Your task to perform on an android device: Go to battery settings Image 0: 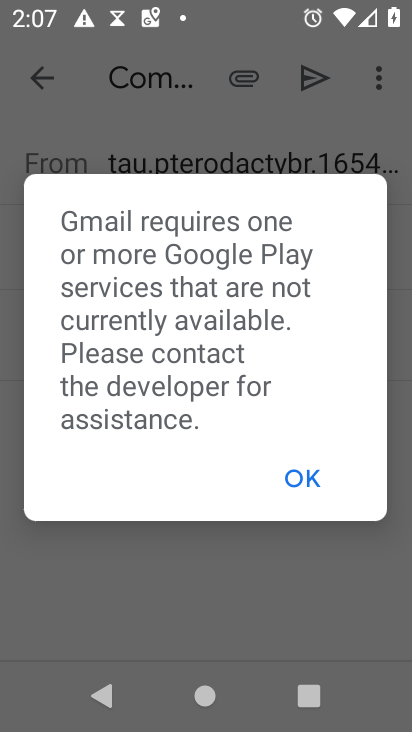
Step 0: click (313, 479)
Your task to perform on an android device: Go to battery settings Image 1: 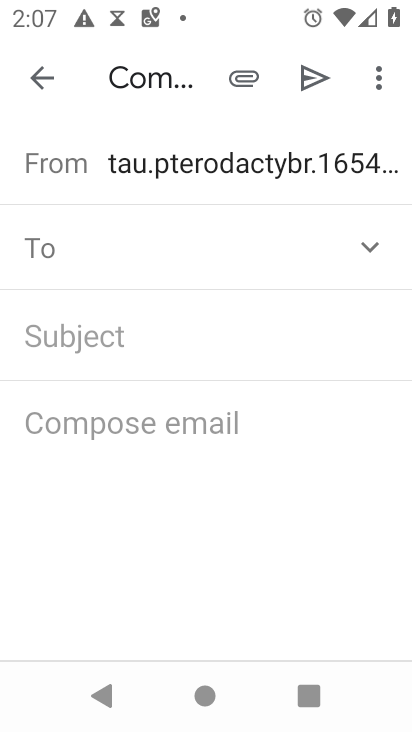
Step 1: press back button
Your task to perform on an android device: Go to battery settings Image 2: 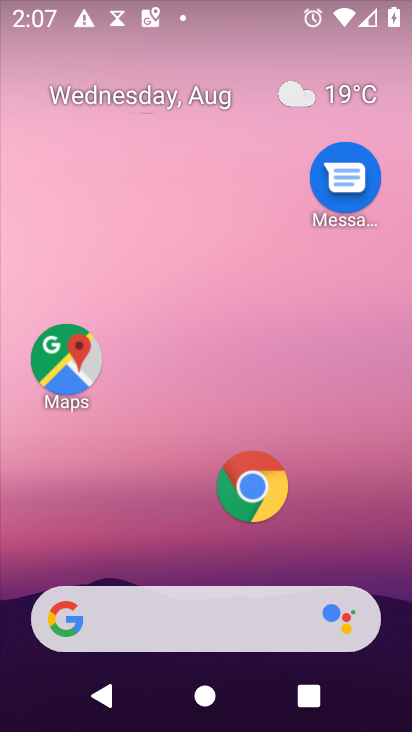
Step 2: drag from (133, 524) to (211, 22)
Your task to perform on an android device: Go to battery settings Image 3: 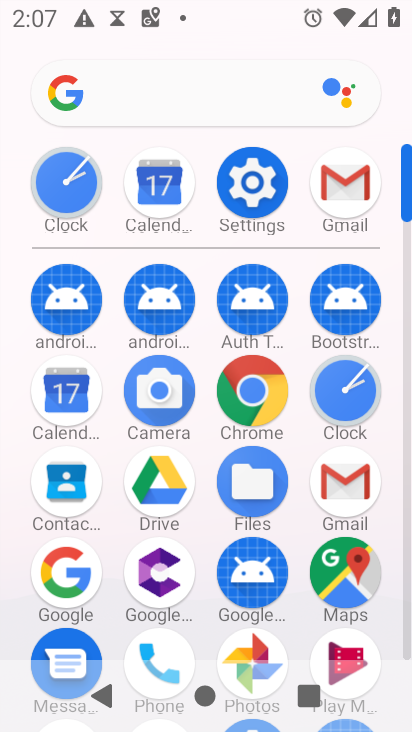
Step 3: click (252, 179)
Your task to perform on an android device: Go to battery settings Image 4: 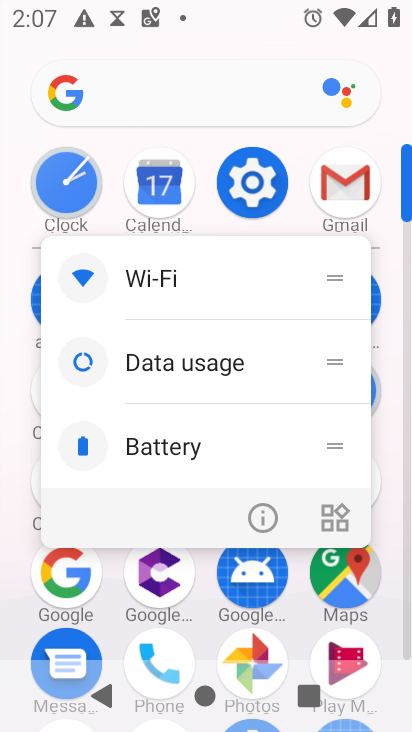
Step 4: click (260, 186)
Your task to perform on an android device: Go to battery settings Image 5: 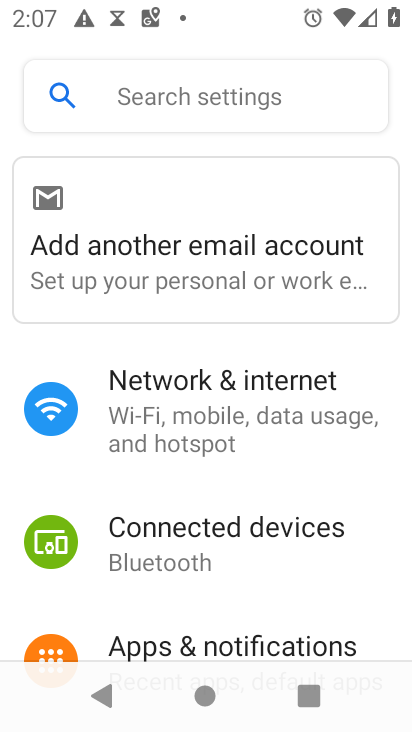
Step 5: drag from (171, 646) to (258, 95)
Your task to perform on an android device: Go to battery settings Image 6: 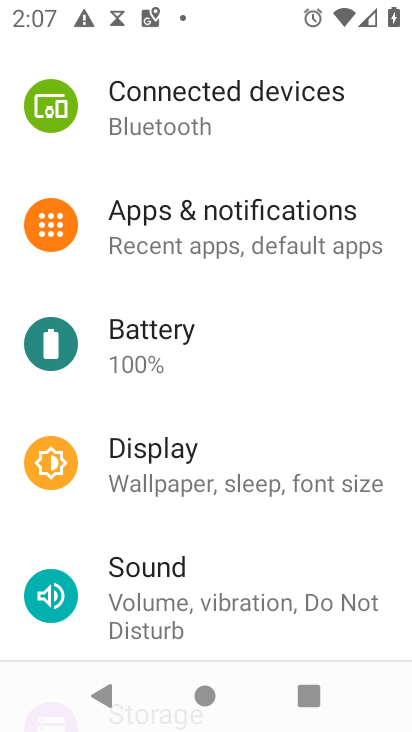
Step 6: click (146, 336)
Your task to perform on an android device: Go to battery settings Image 7: 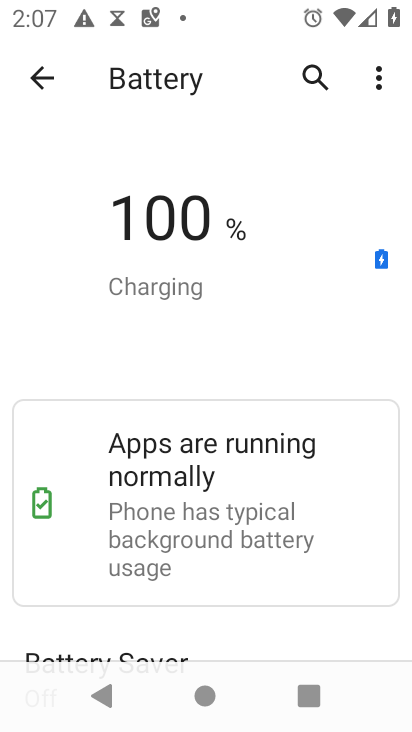
Step 7: task complete